Your task to perform on an android device: change notifications settings Image 0: 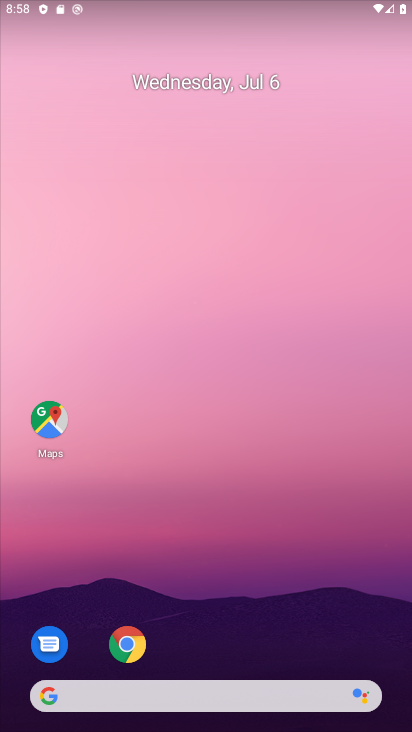
Step 0: drag from (249, 640) to (165, 115)
Your task to perform on an android device: change notifications settings Image 1: 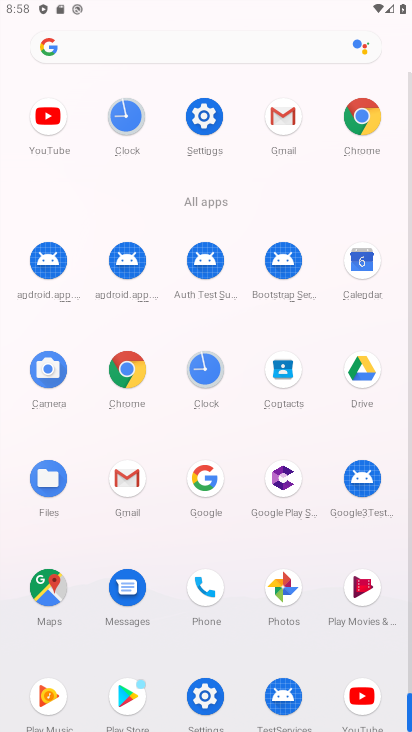
Step 1: click (207, 124)
Your task to perform on an android device: change notifications settings Image 2: 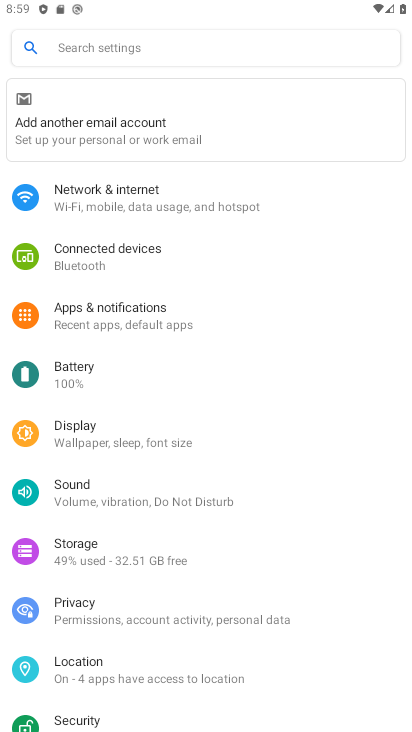
Step 2: click (116, 323)
Your task to perform on an android device: change notifications settings Image 3: 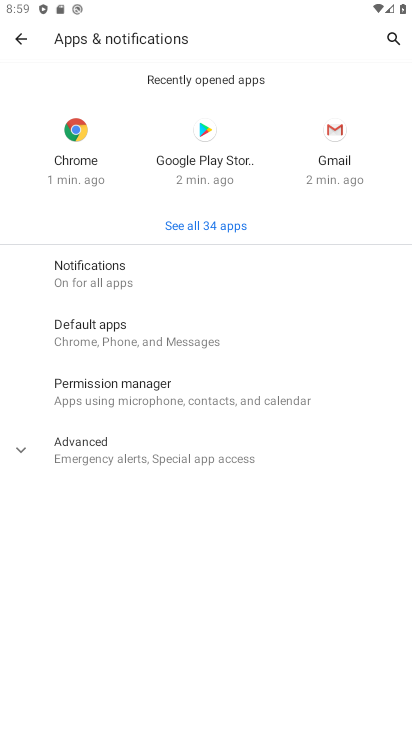
Step 3: click (122, 468)
Your task to perform on an android device: change notifications settings Image 4: 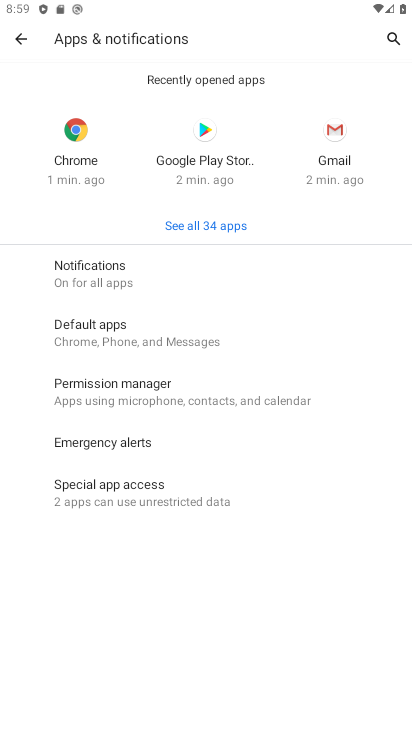
Step 4: click (137, 274)
Your task to perform on an android device: change notifications settings Image 5: 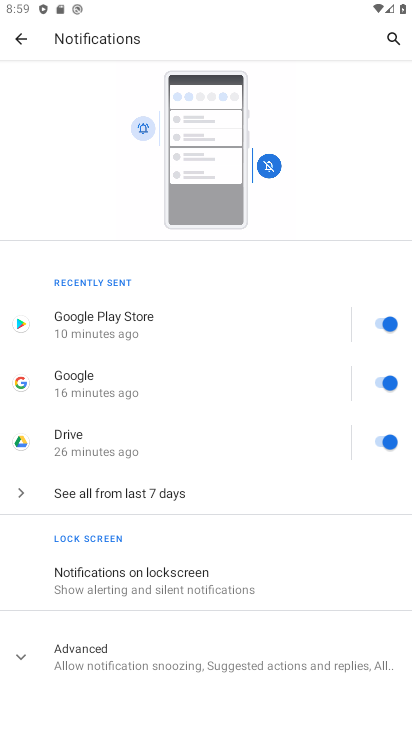
Step 5: click (376, 319)
Your task to perform on an android device: change notifications settings Image 6: 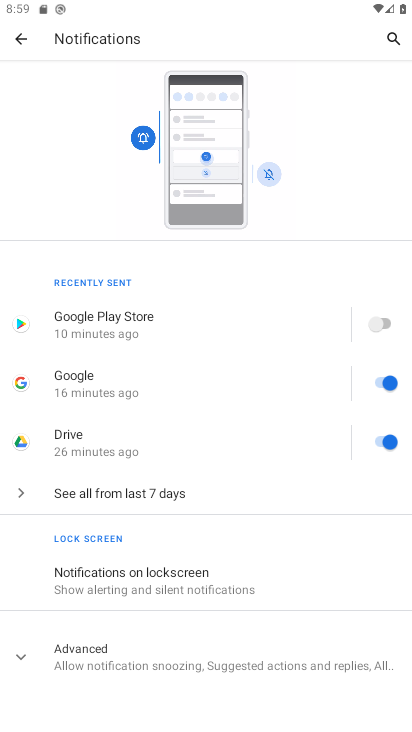
Step 6: task complete